Your task to perform on an android device: What's on my calendar today? Image 0: 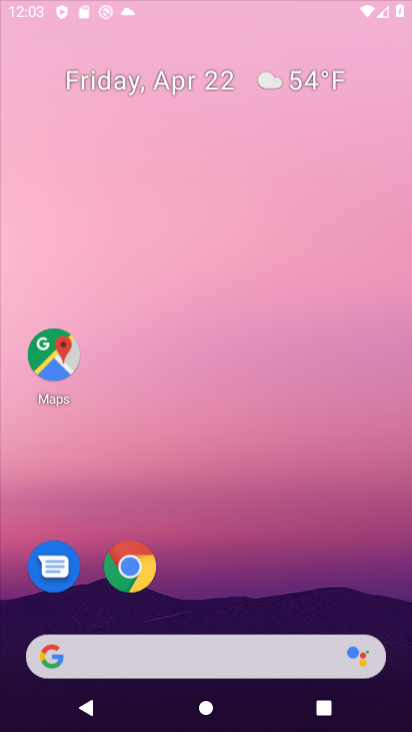
Step 0: click (265, 151)
Your task to perform on an android device: What's on my calendar today? Image 1: 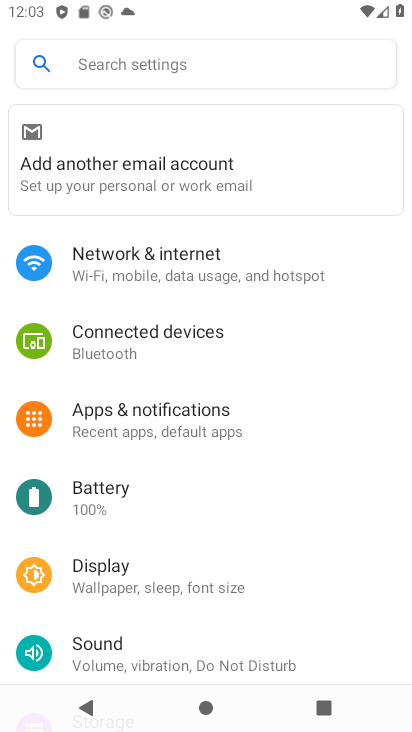
Step 1: press home button
Your task to perform on an android device: What's on my calendar today? Image 2: 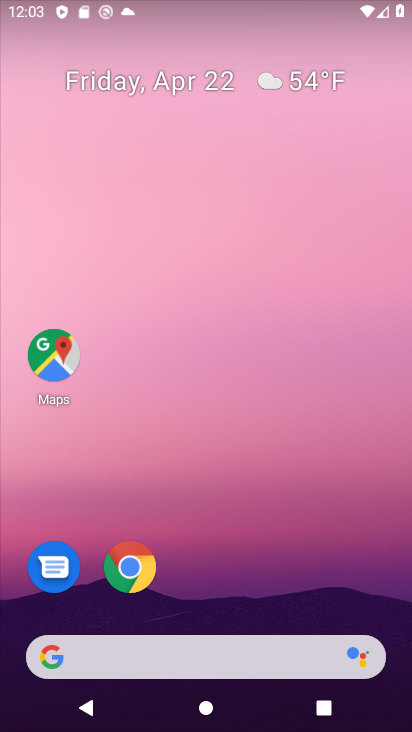
Step 2: drag from (257, 600) to (269, 190)
Your task to perform on an android device: What's on my calendar today? Image 3: 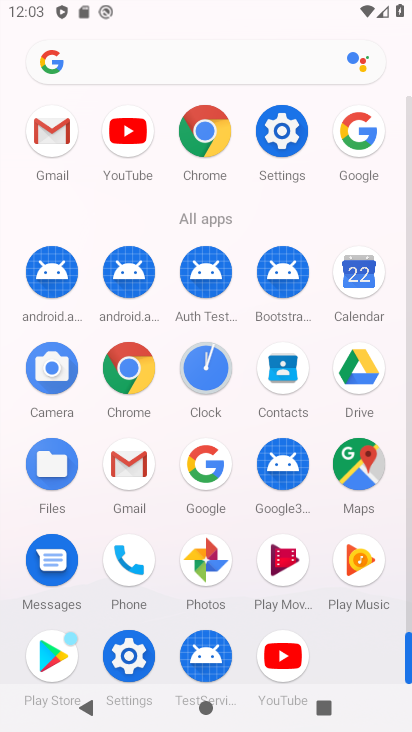
Step 3: click (359, 287)
Your task to perform on an android device: What's on my calendar today? Image 4: 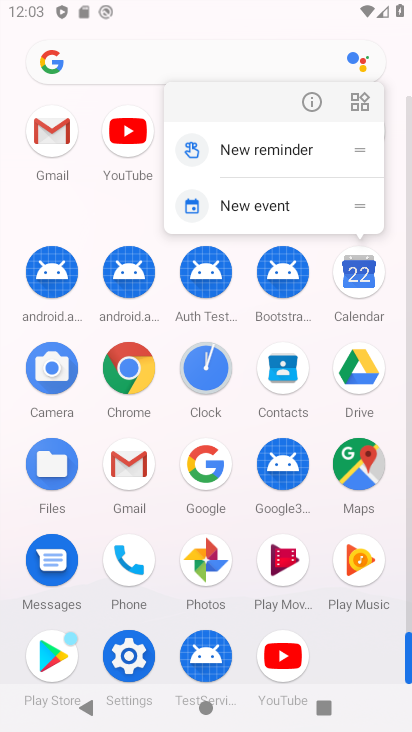
Step 4: click (349, 310)
Your task to perform on an android device: What's on my calendar today? Image 5: 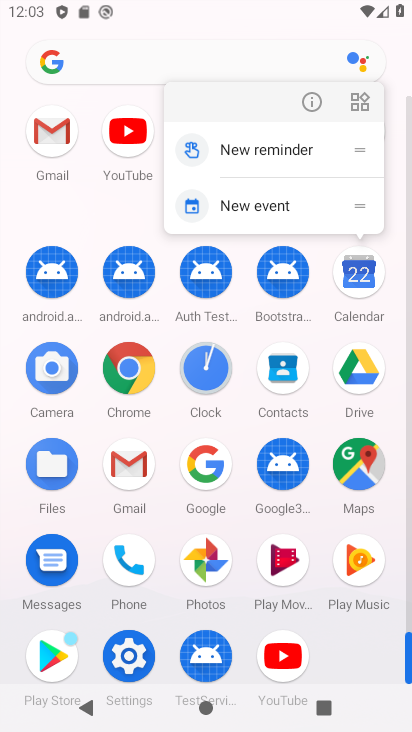
Step 5: click (362, 318)
Your task to perform on an android device: What's on my calendar today? Image 6: 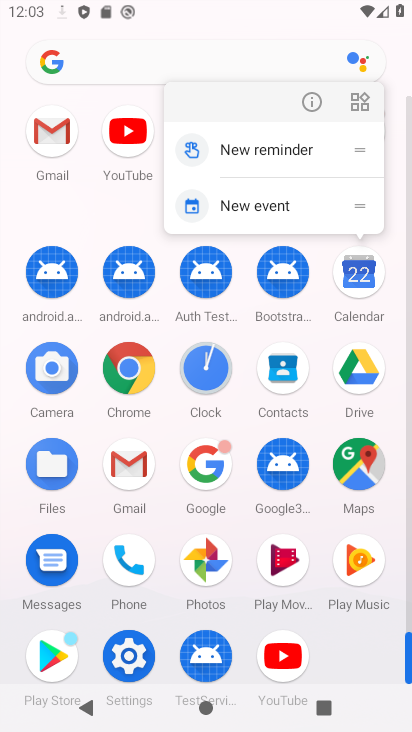
Step 6: click (359, 305)
Your task to perform on an android device: What's on my calendar today? Image 7: 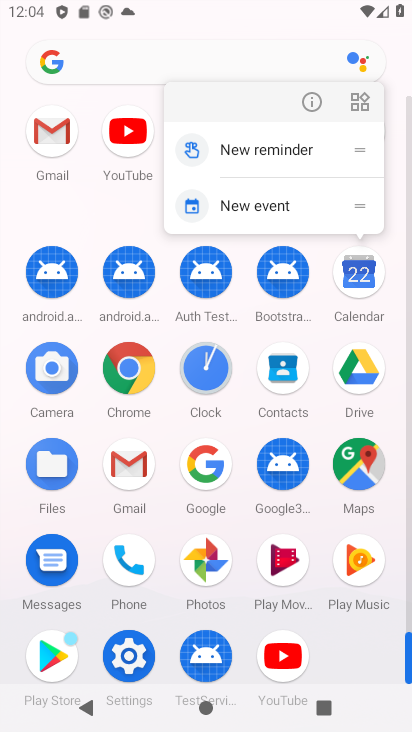
Step 7: click (361, 310)
Your task to perform on an android device: What's on my calendar today? Image 8: 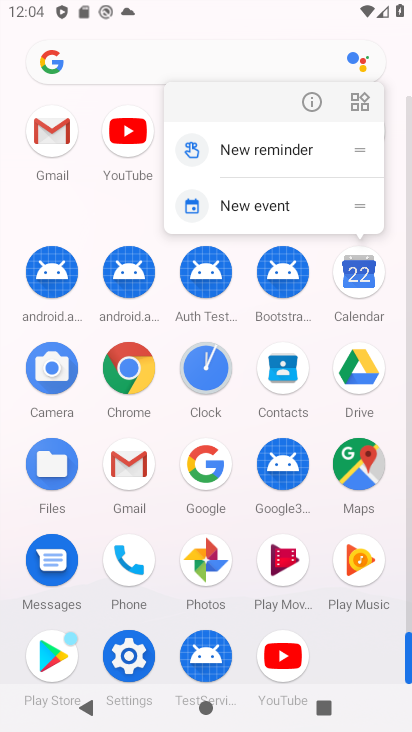
Step 8: click (364, 313)
Your task to perform on an android device: What's on my calendar today? Image 9: 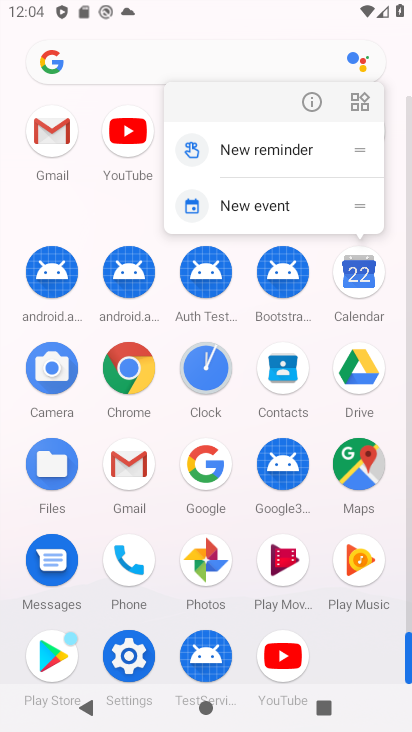
Step 9: click (364, 313)
Your task to perform on an android device: What's on my calendar today? Image 10: 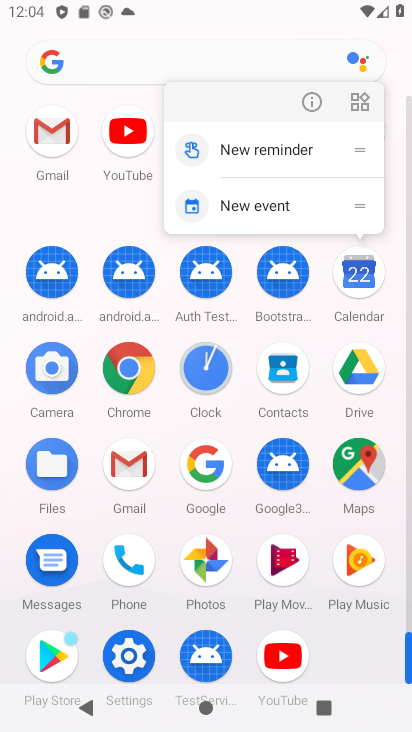
Step 10: click (365, 316)
Your task to perform on an android device: What's on my calendar today? Image 11: 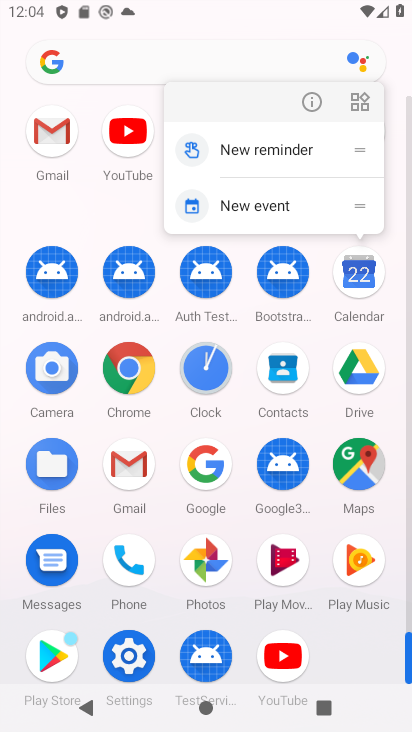
Step 11: click (365, 316)
Your task to perform on an android device: What's on my calendar today? Image 12: 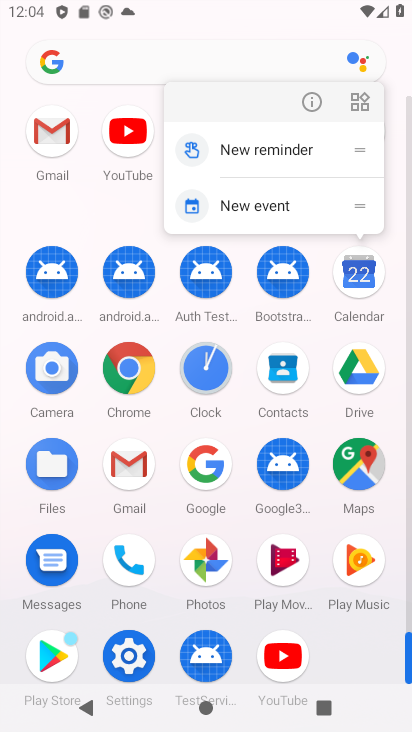
Step 12: click (365, 317)
Your task to perform on an android device: What's on my calendar today? Image 13: 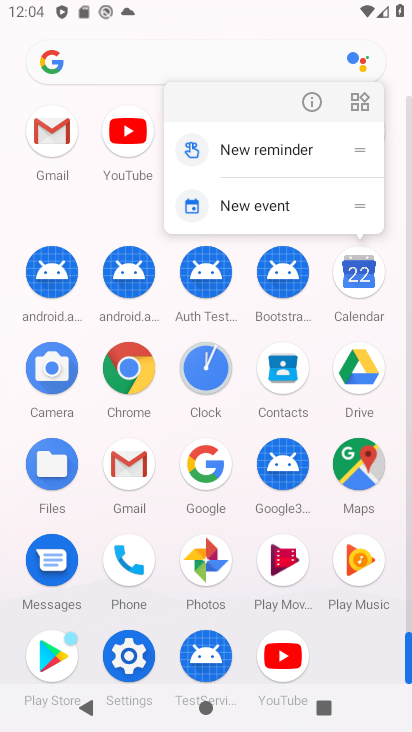
Step 13: click (357, 311)
Your task to perform on an android device: What's on my calendar today? Image 14: 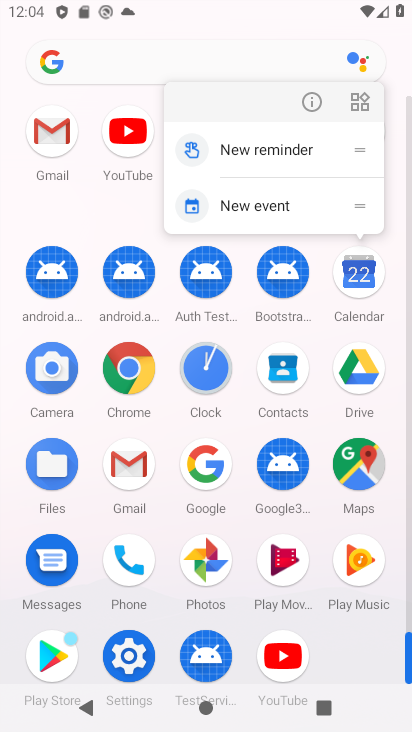
Step 14: click (365, 281)
Your task to perform on an android device: What's on my calendar today? Image 15: 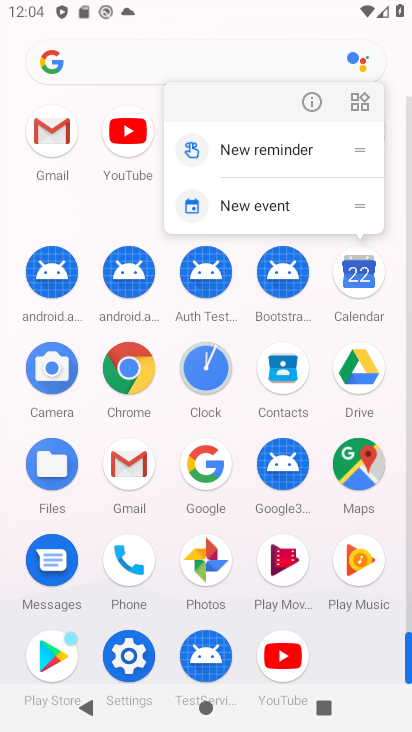
Step 15: click (367, 287)
Your task to perform on an android device: What's on my calendar today? Image 16: 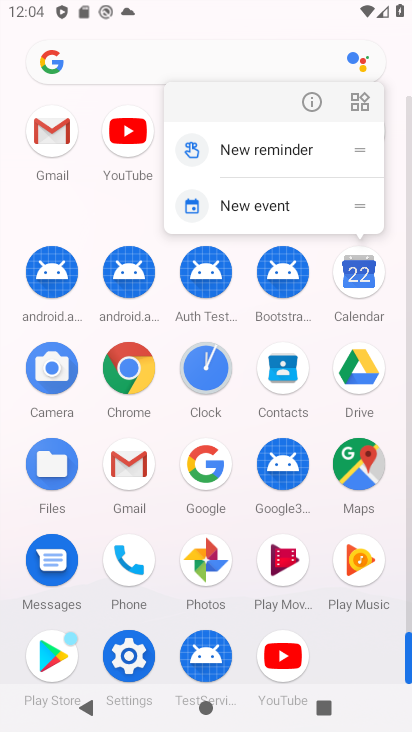
Step 16: click (364, 300)
Your task to perform on an android device: What's on my calendar today? Image 17: 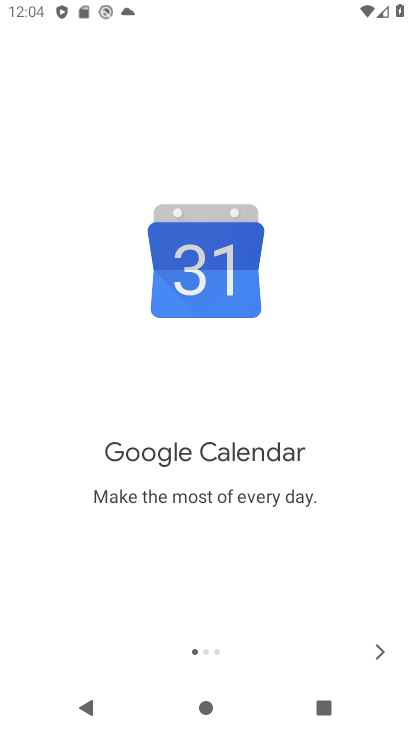
Step 17: click (376, 651)
Your task to perform on an android device: What's on my calendar today? Image 18: 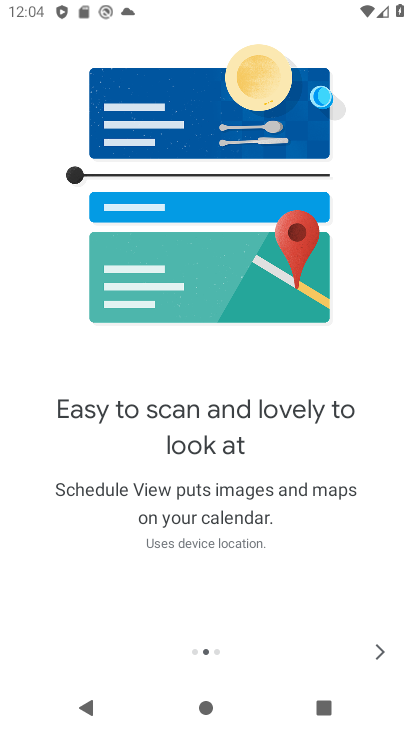
Step 18: click (389, 659)
Your task to perform on an android device: What's on my calendar today? Image 19: 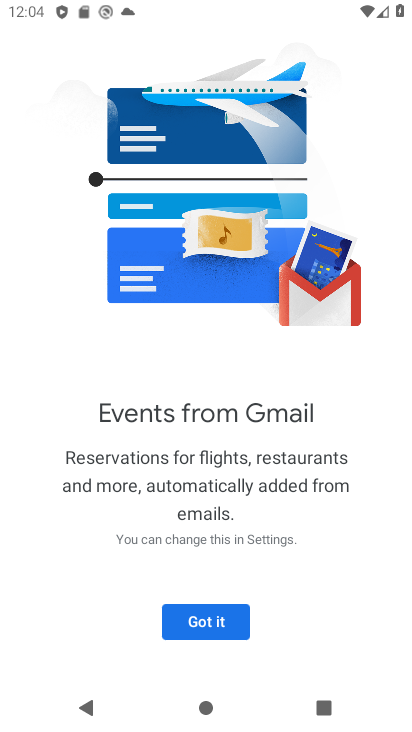
Step 19: click (208, 632)
Your task to perform on an android device: What's on my calendar today? Image 20: 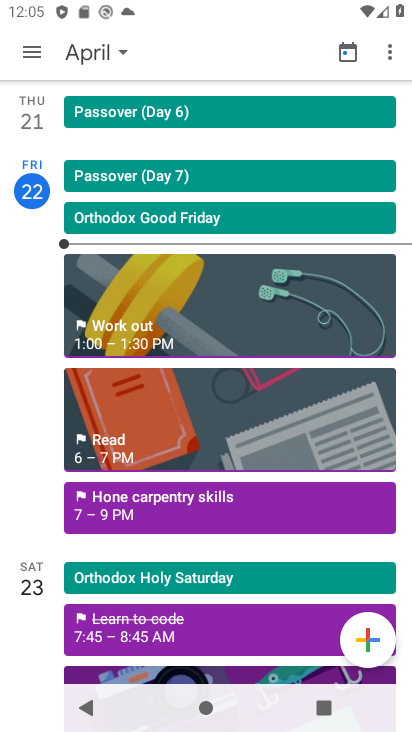
Step 20: task complete